Your task to perform on an android device: install app "Microsoft Excel" Image 0: 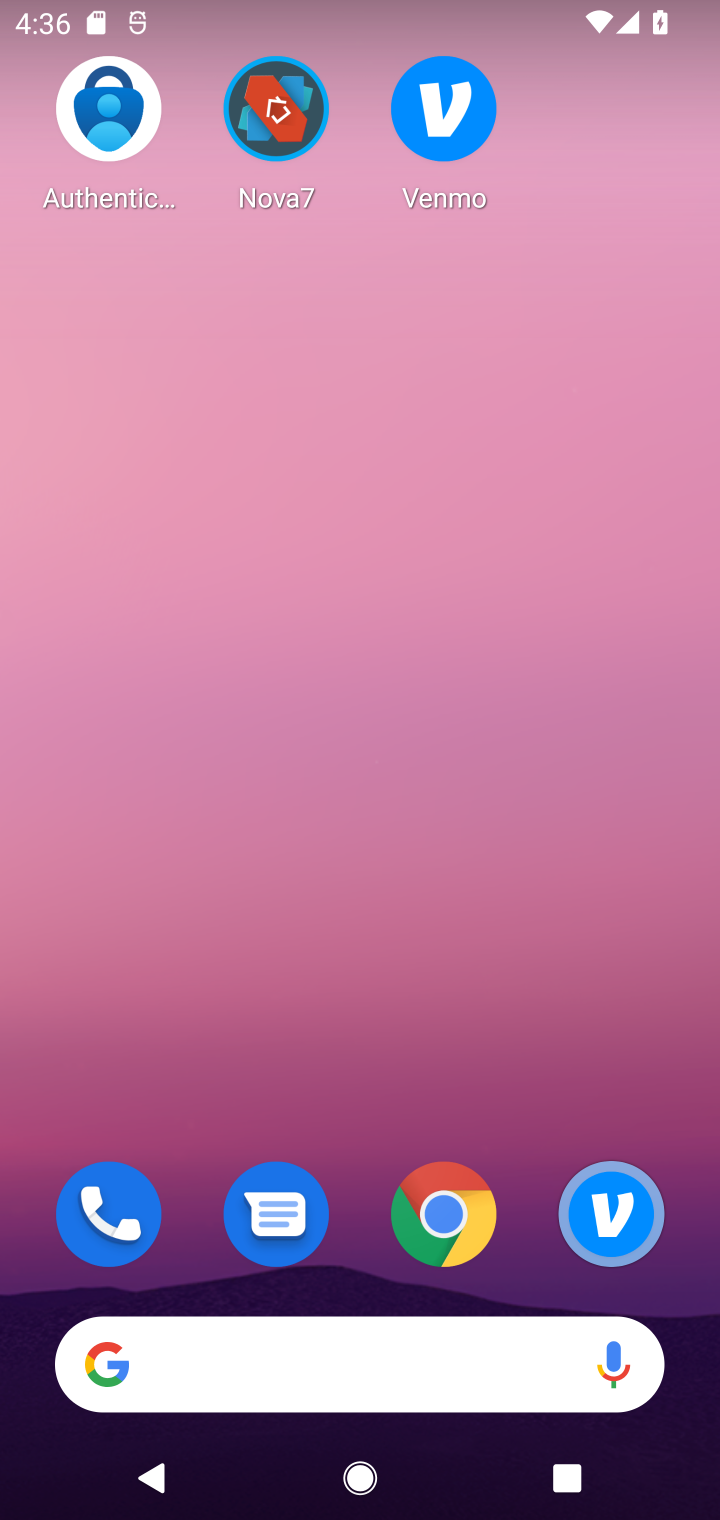
Step 0: drag from (348, 1253) to (514, 14)
Your task to perform on an android device: install app "Microsoft Excel" Image 1: 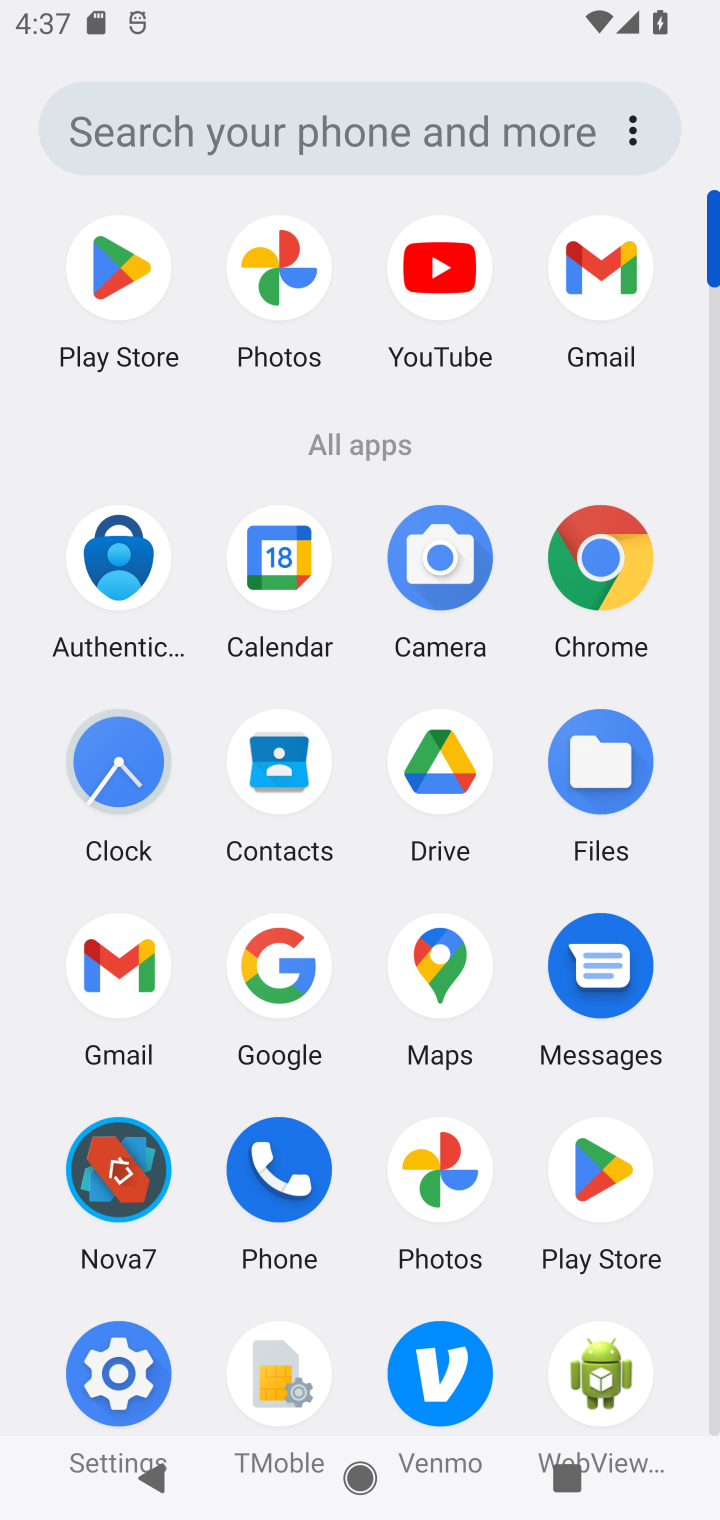
Step 1: click (606, 1153)
Your task to perform on an android device: install app "Microsoft Excel" Image 2: 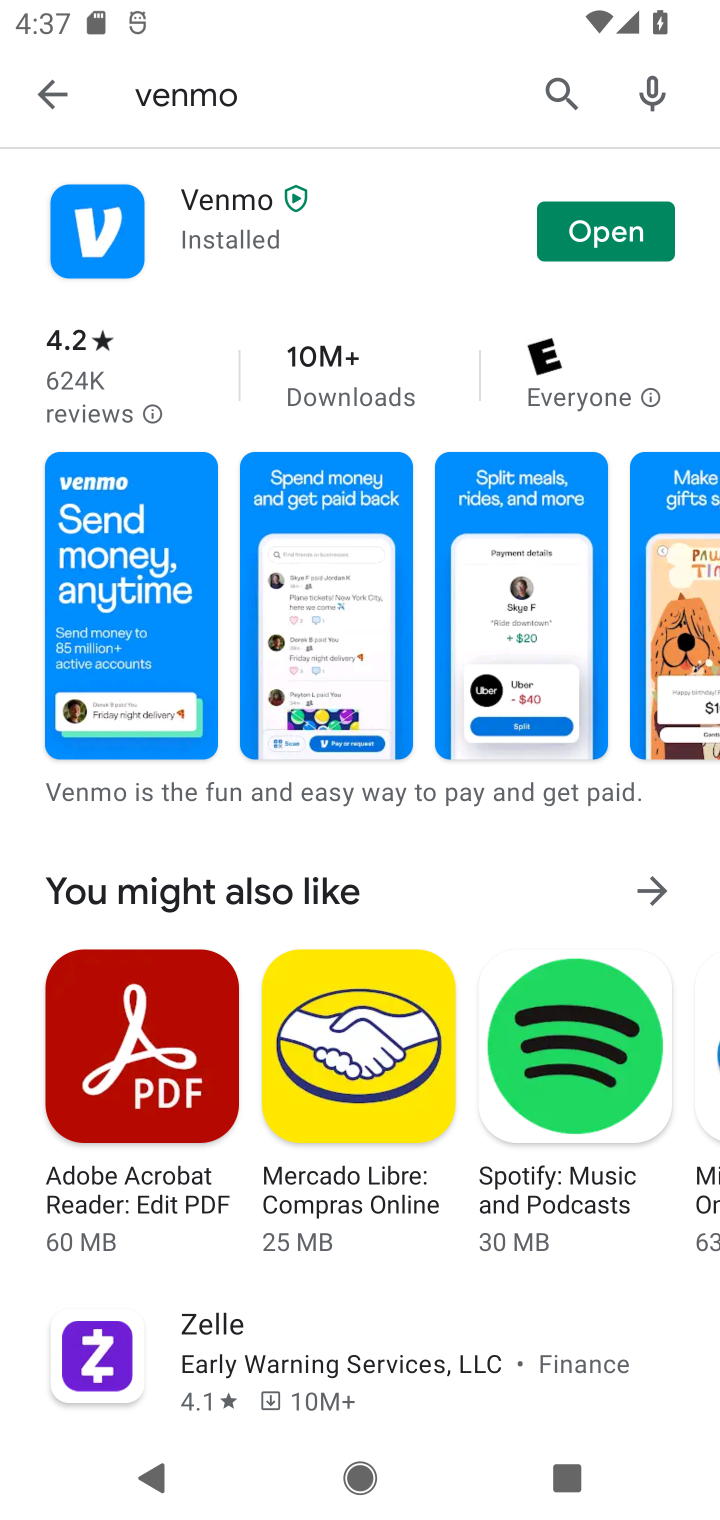
Step 2: click (319, 102)
Your task to perform on an android device: install app "Microsoft Excel" Image 3: 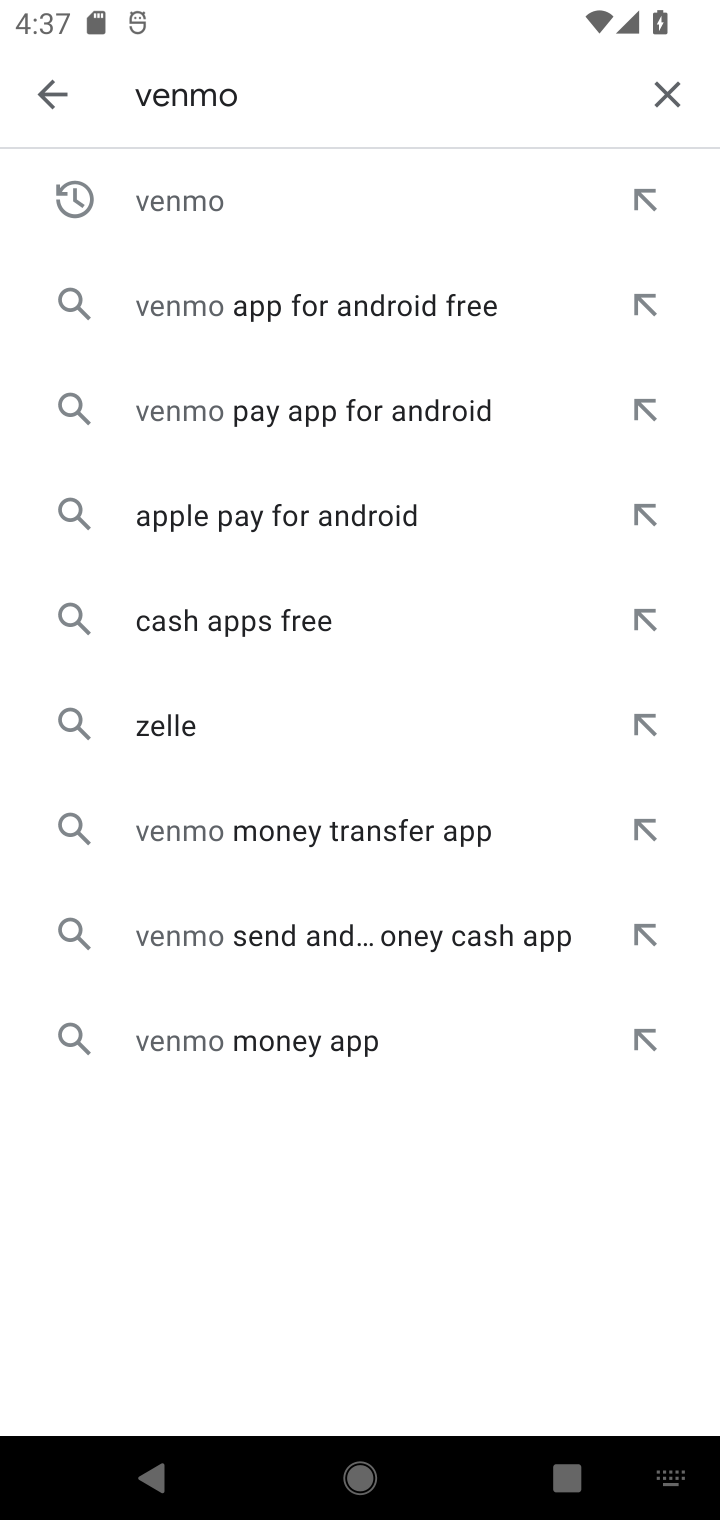
Step 3: click (664, 92)
Your task to perform on an android device: install app "Microsoft Excel" Image 4: 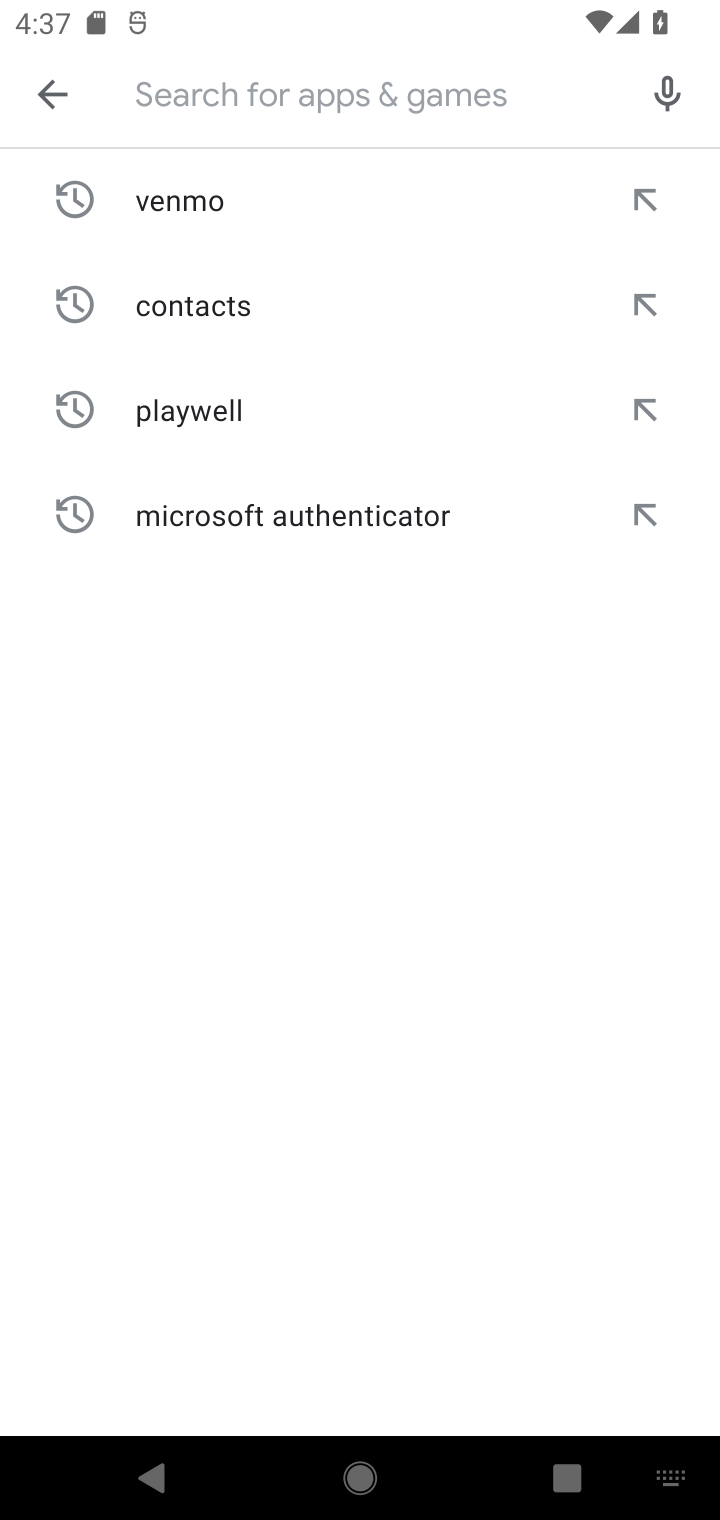
Step 4: type "microsoft excel"
Your task to perform on an android device: install app "Microsoft Excel" Image 5: 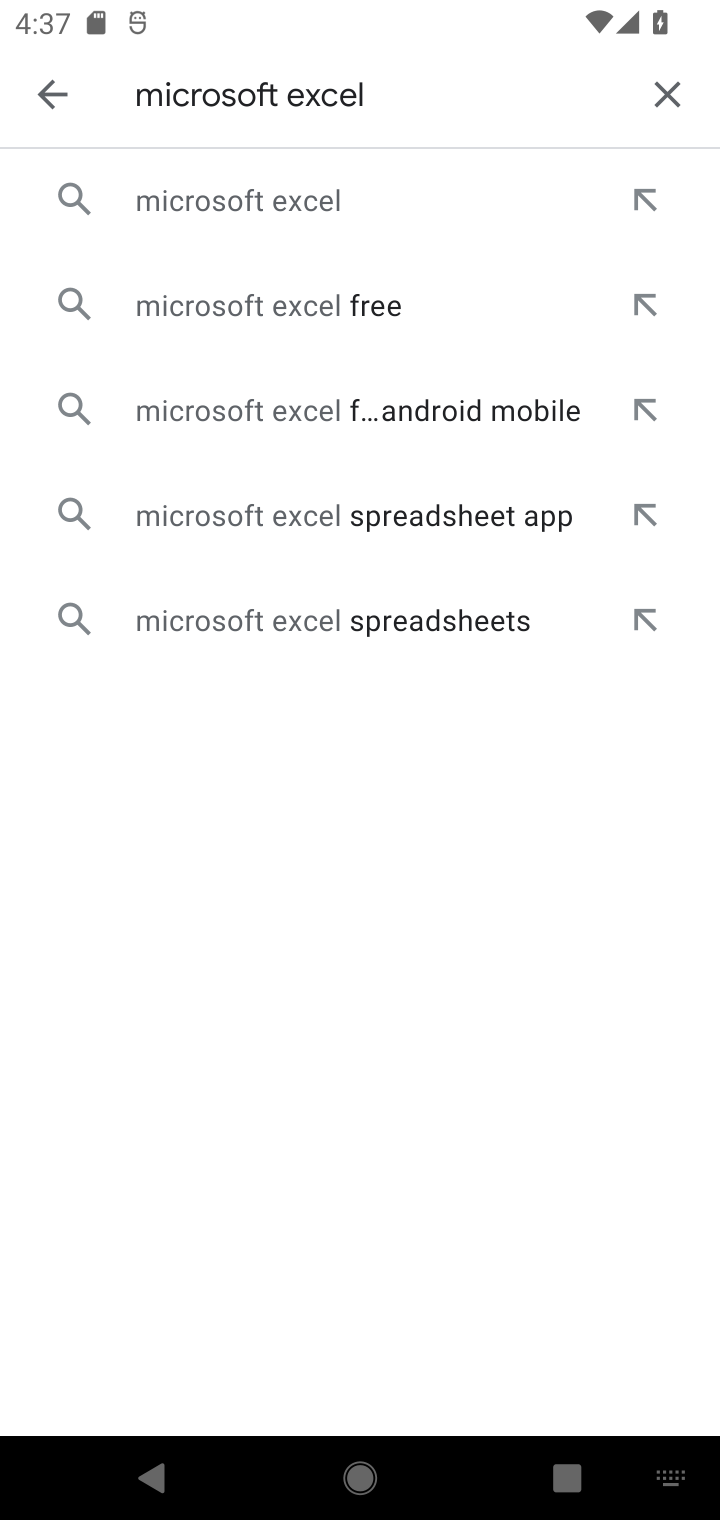
Step 5: click (258, 175)
Your task to perform on an android device: install app "Microsoft Excel" Image 6: 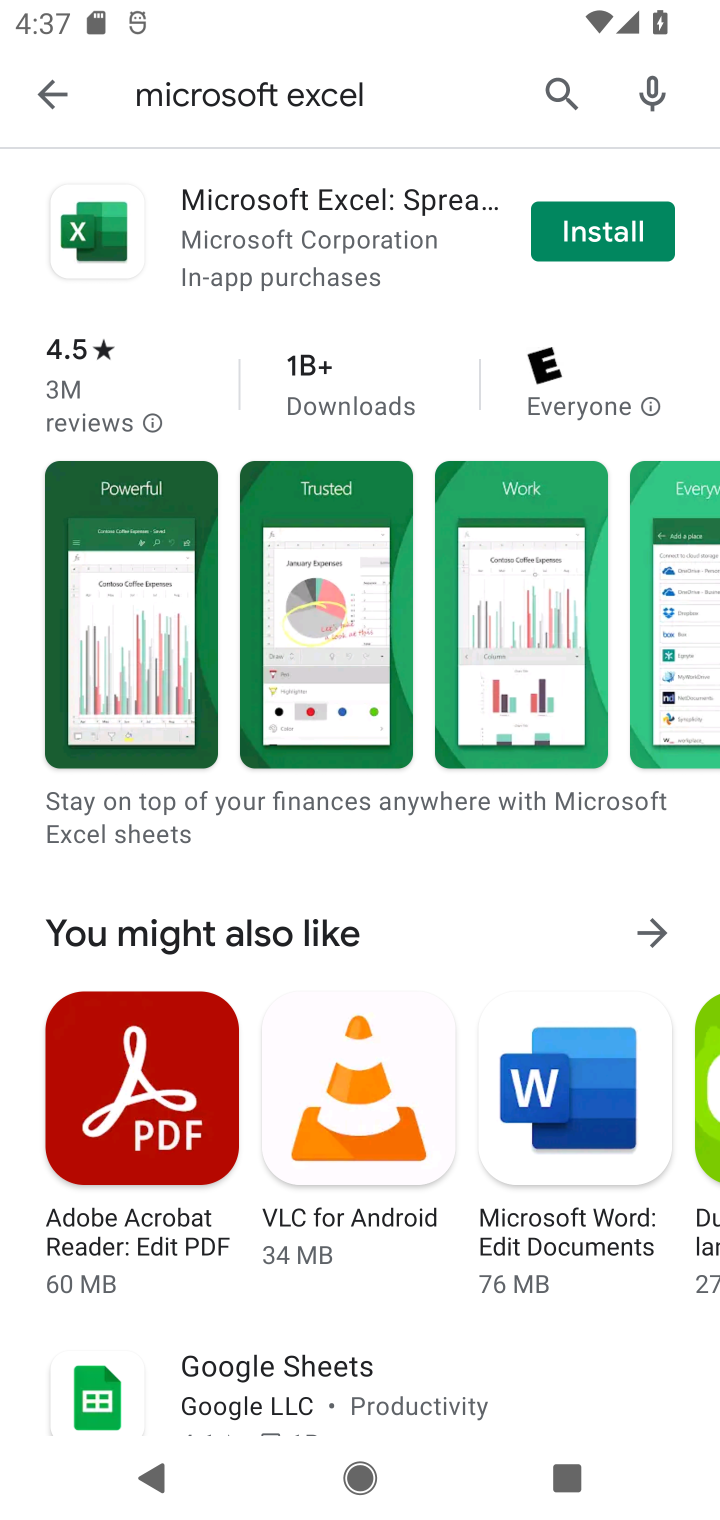
Step 6: click (607, 242)
Your task to perform on an android device: install app "Microsoft Excel" Image 7: 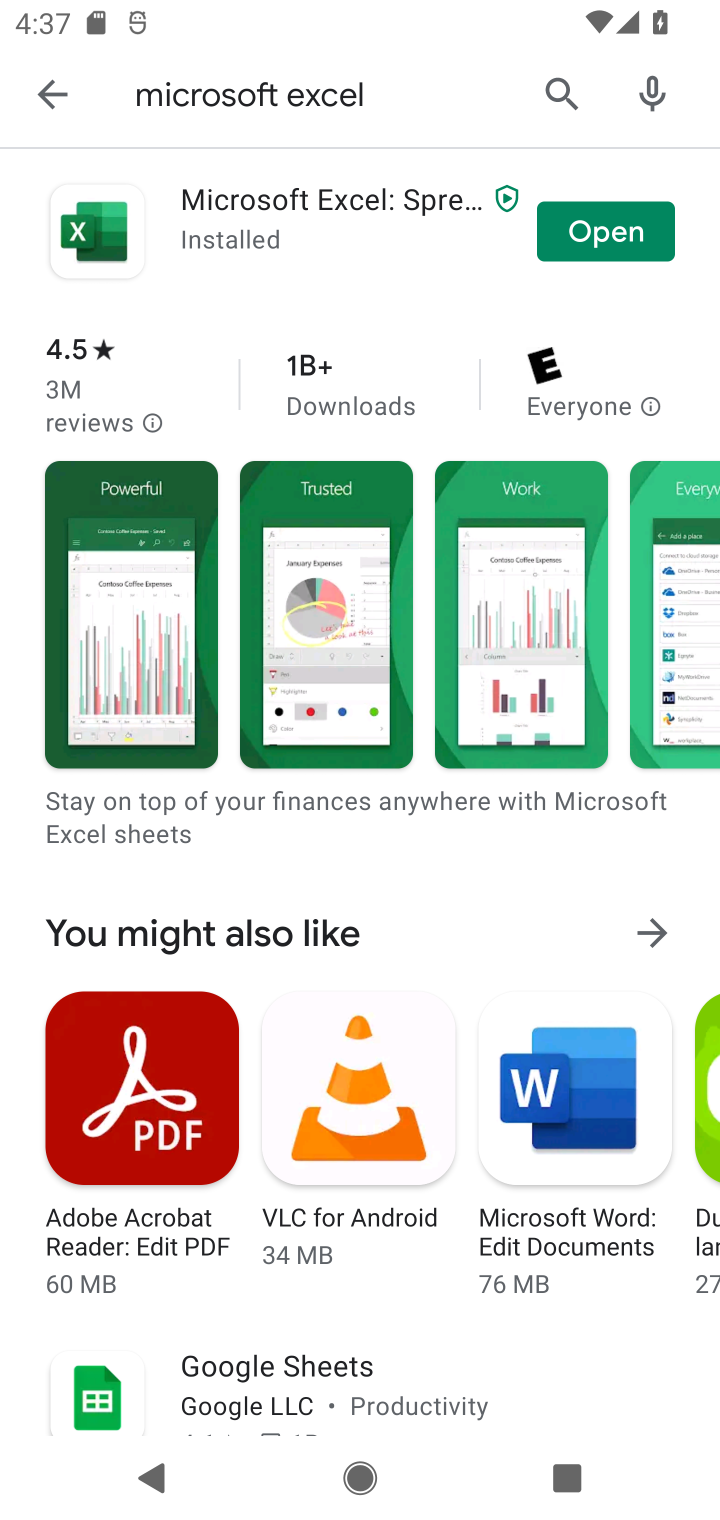
Step 7: task complete